Your task to perform on an android device: Open maps Image 0: 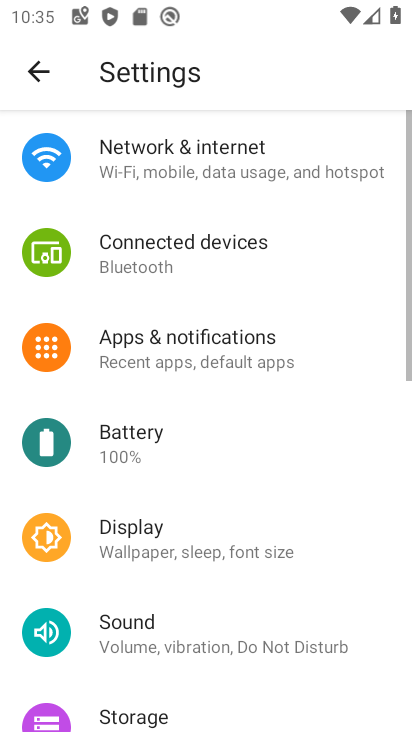
Step 0: press back button
Your task to perform on an android device: Open maps Image 1: 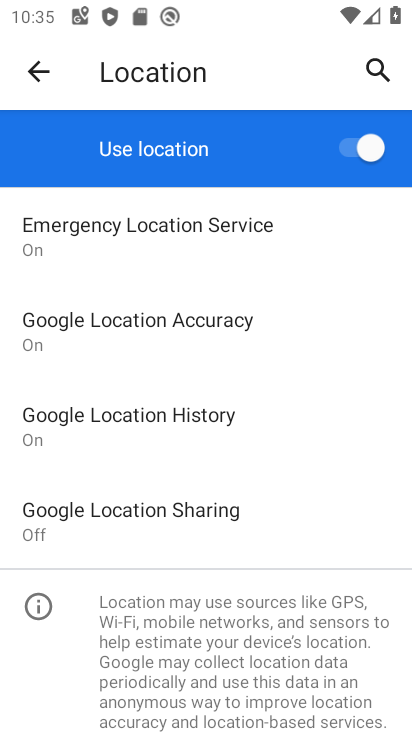
Step 1: click (47, 58)
Your task to perform on an android device: Open maps Image 2: 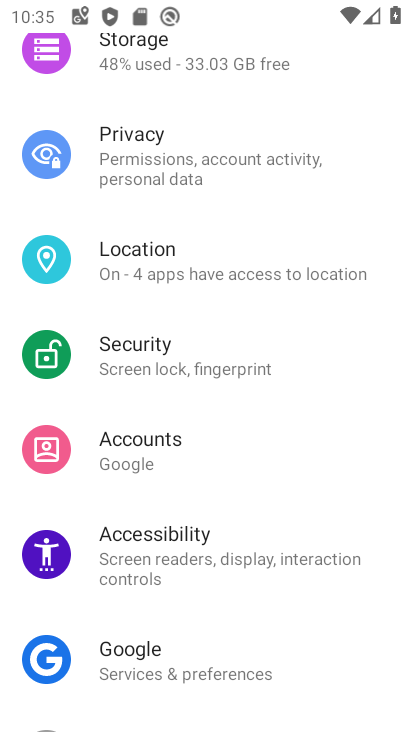
Step 2: press back button
Your task to perform on an android device: Open maps Image 3: 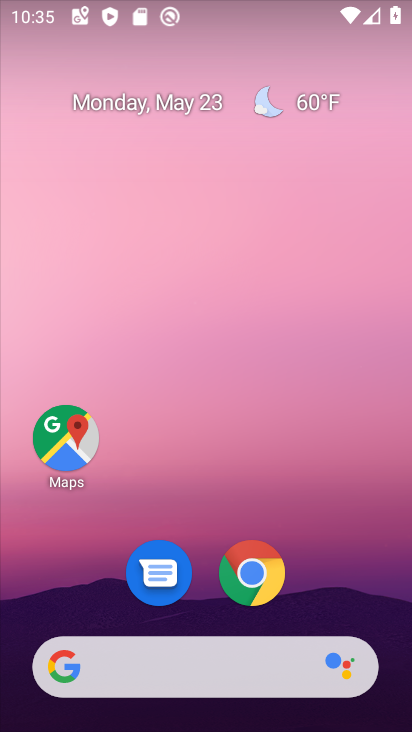
Step 3: click (64, 434)
Your task to perform on an android device: Open maps Image 4: 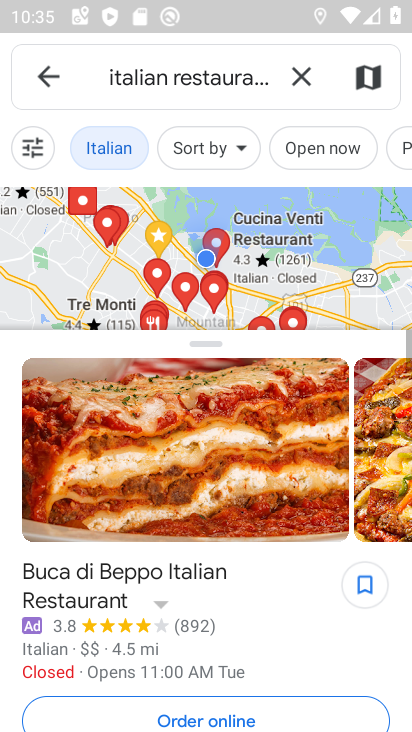
Step 4: click (44, 69)
Your task to perform on an android device: Open maps Image 5: 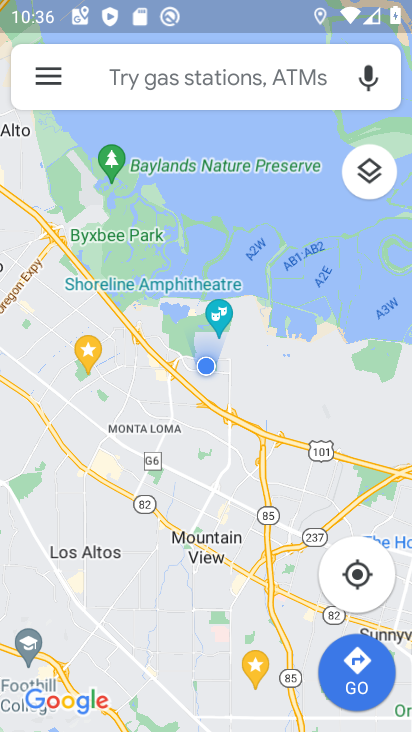
Step 5: task complete